Your task to perform on an android device: empty trash in the gmail app Image 0: 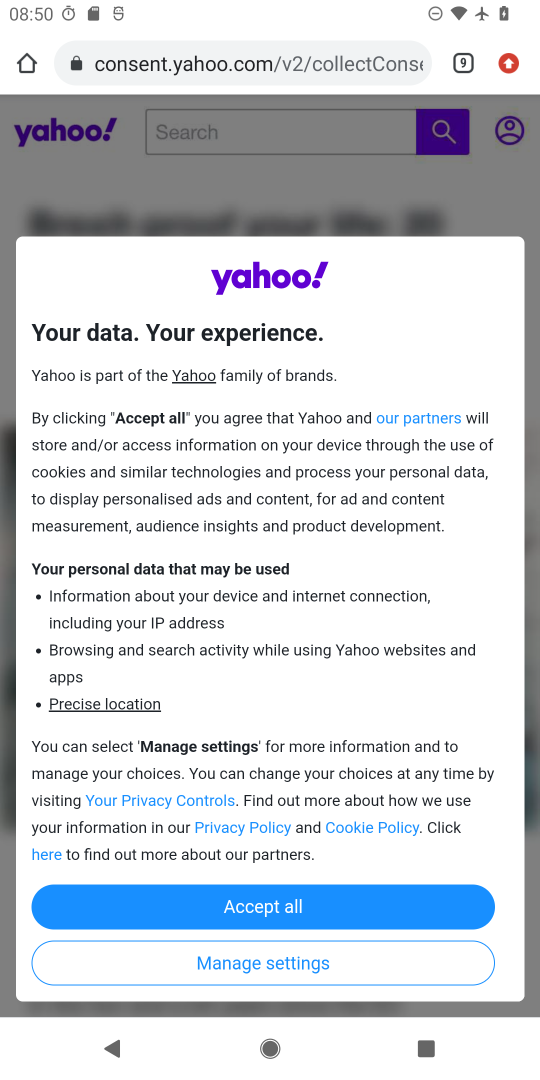
Step 0: press home button
Your task to perform on an android device: empty trash in the gmail app Image 1: 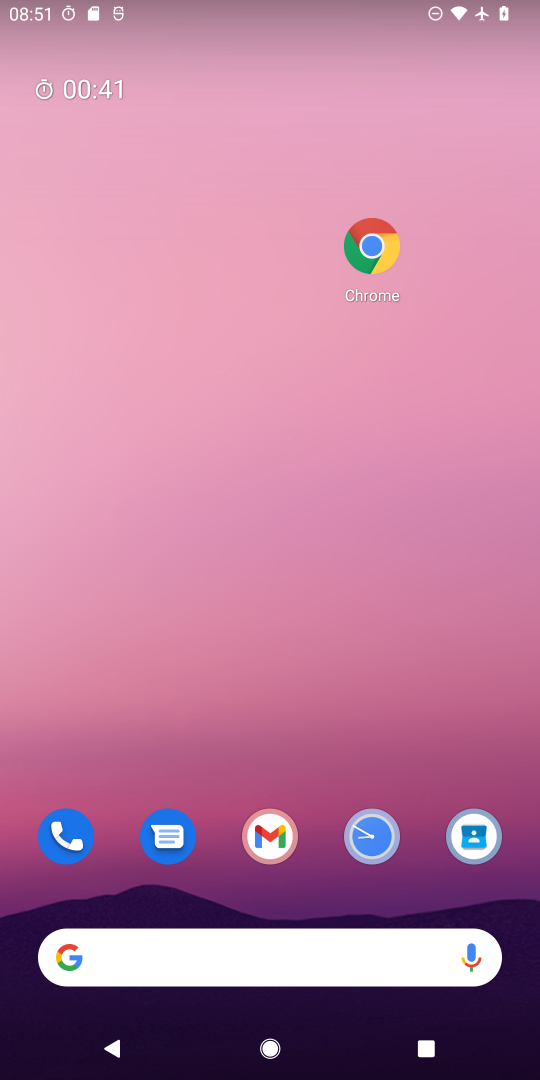
Step 1: click (273, 107)
Your task to perform on an android device: empty trash in the gmail app Image 2: 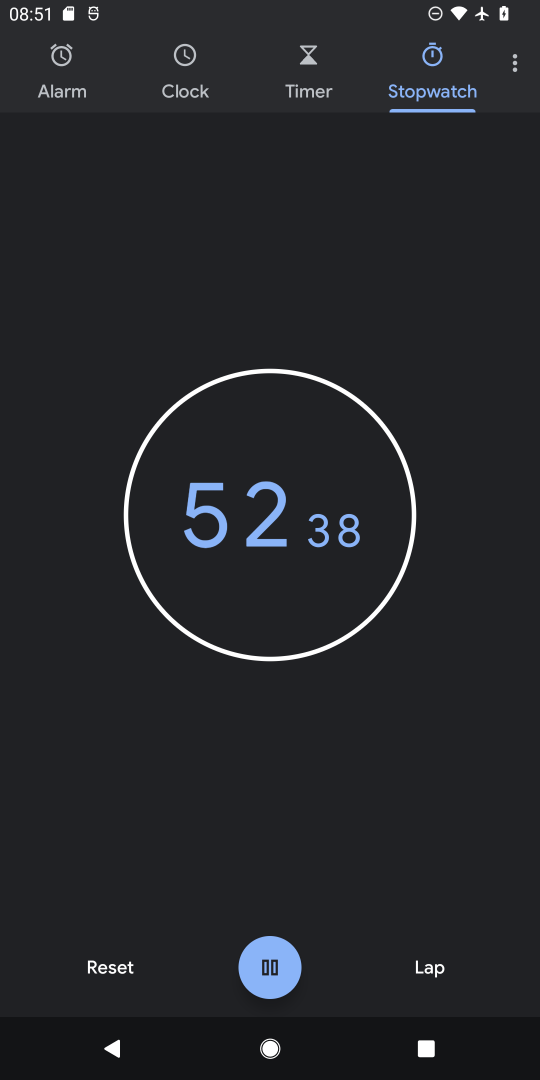
Step 2: press home button
Your task to perform on an android device: empty trash in the gmail app Image 3: 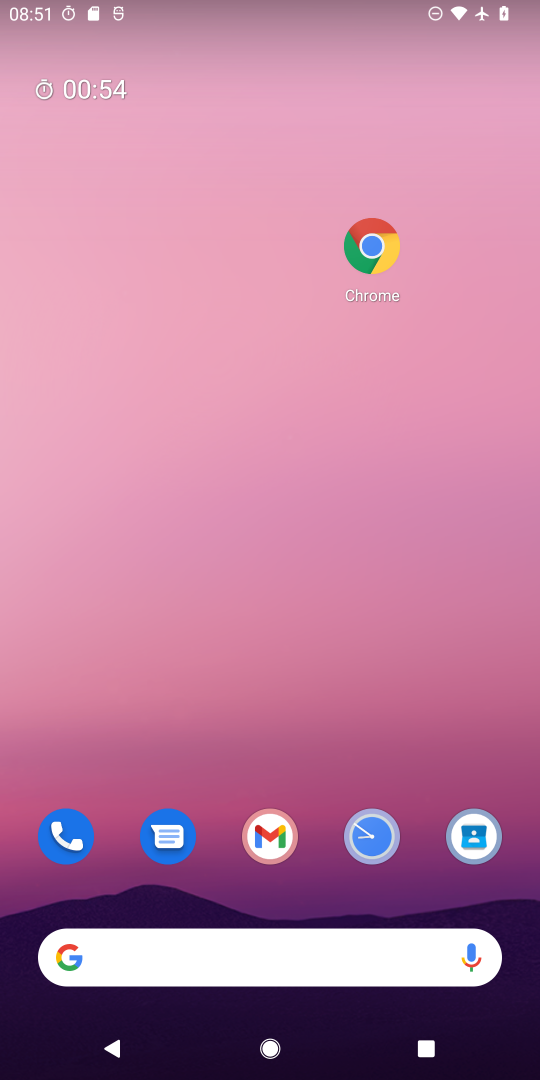
Step 3: drag from (233, 785) to (241, 190)
Your task to perform on an android device: empty trash in the gmail app Image 4: 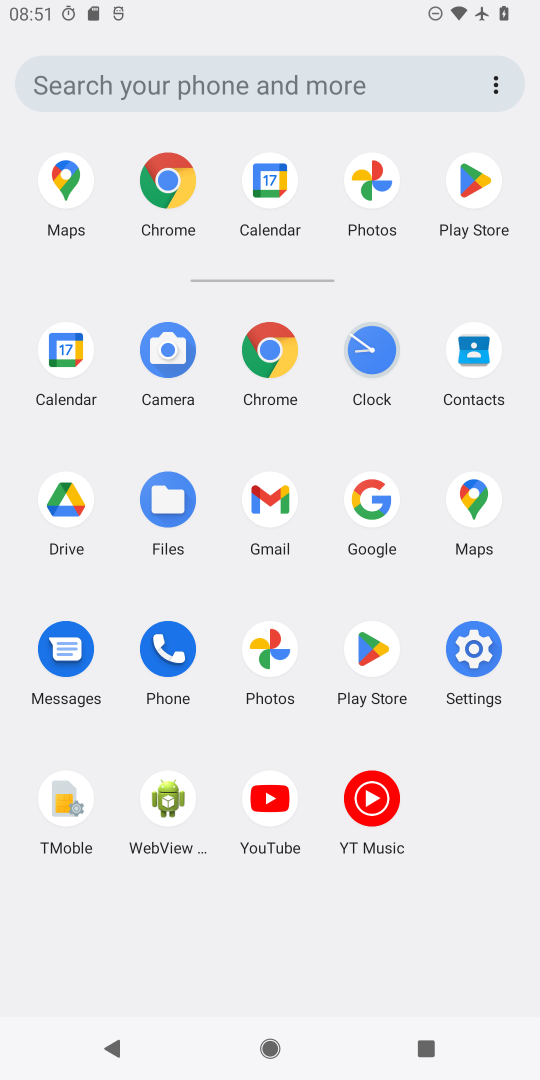
Step 4: click (272, 499)
Your task to perform on an android device: empty trash in the gmail app Image 5: 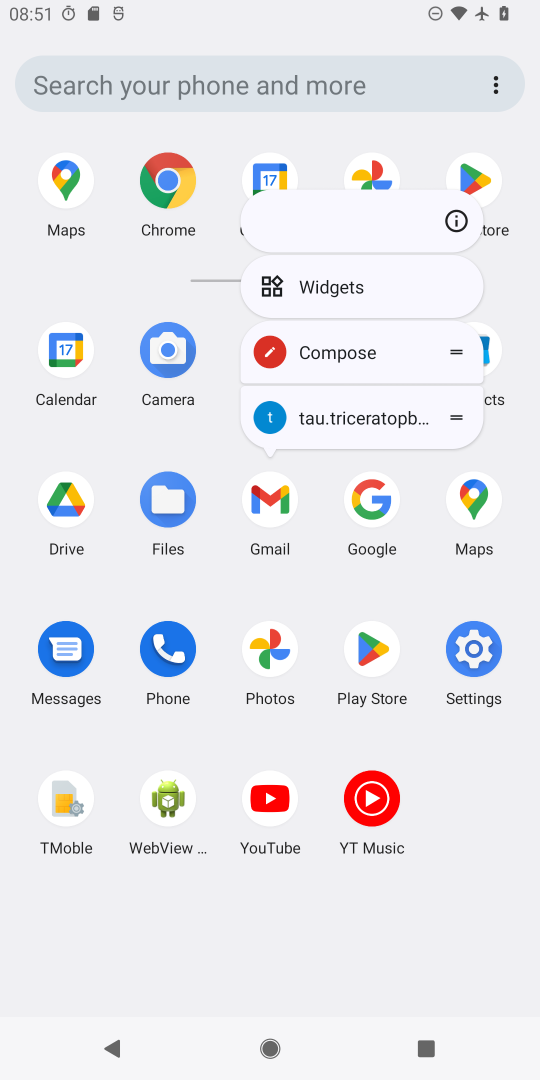
Step 5: click (260, 505)
Your task to perform on an android device: empty trash in the gmail app Image 6: 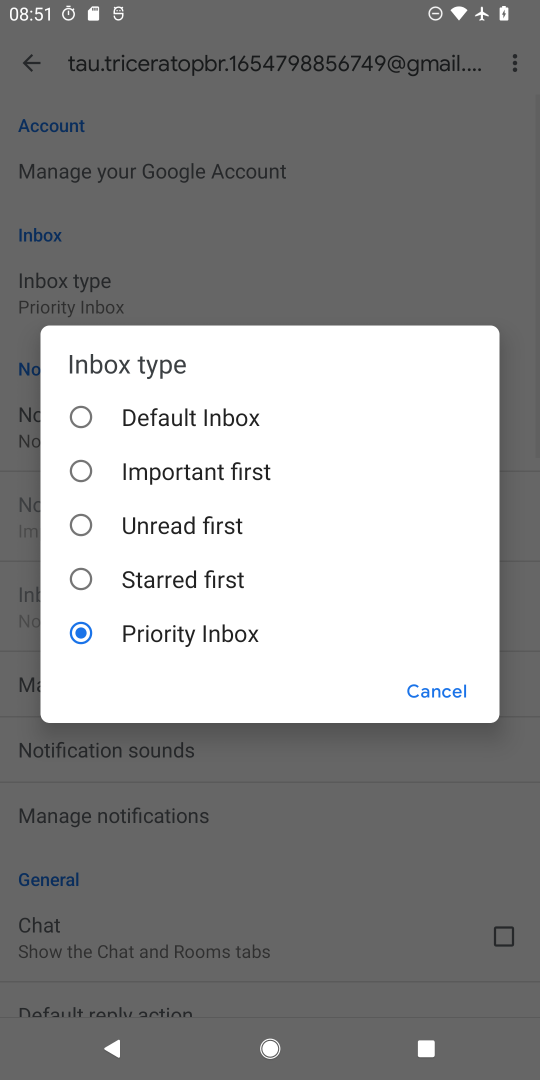
Step 6: click (258, 283)
Your task to perform on an android device: empty trash in the gmail app Image 7: 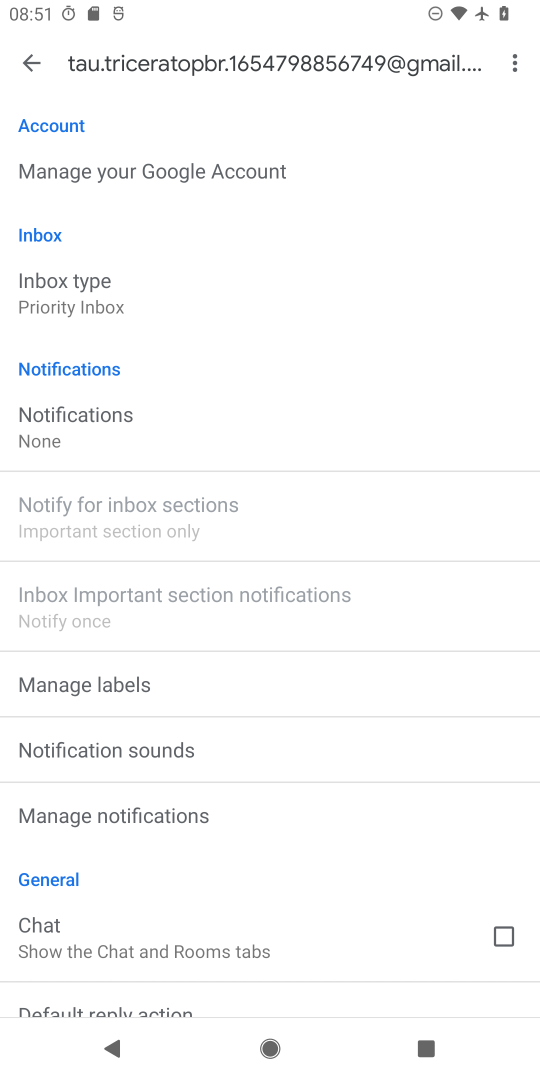
Step 7: click (25, 37)
Your task to perform on an android device: empty trash in the gmail app Image 8: 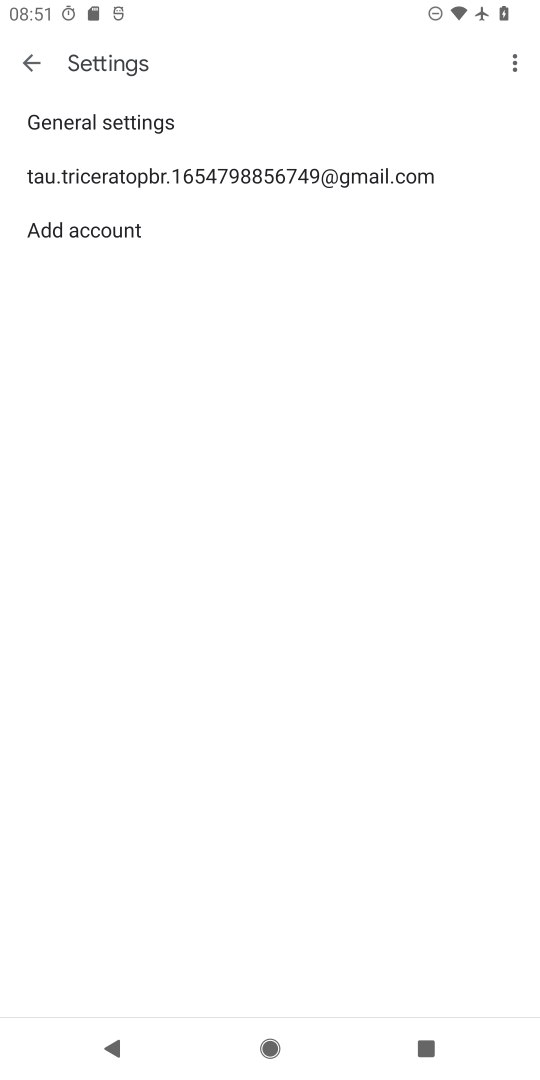
Step 8: click (25, 46)
Your task to perform on an android device: empty trash in the gmail app Image 9: 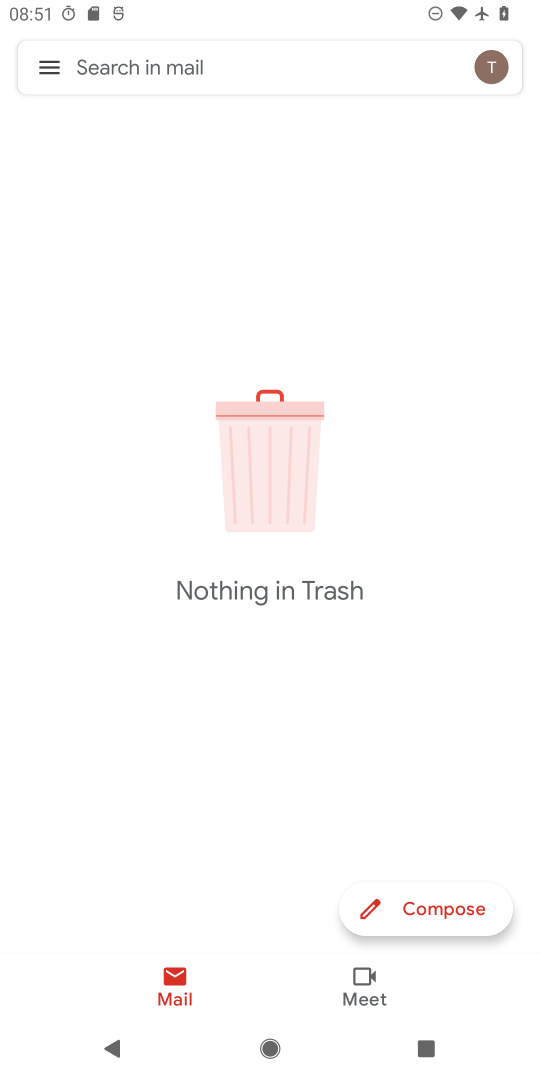
Step 9: click (39, 54)
Your task to perform on an android device: empty trash in the gmail app Image 10: 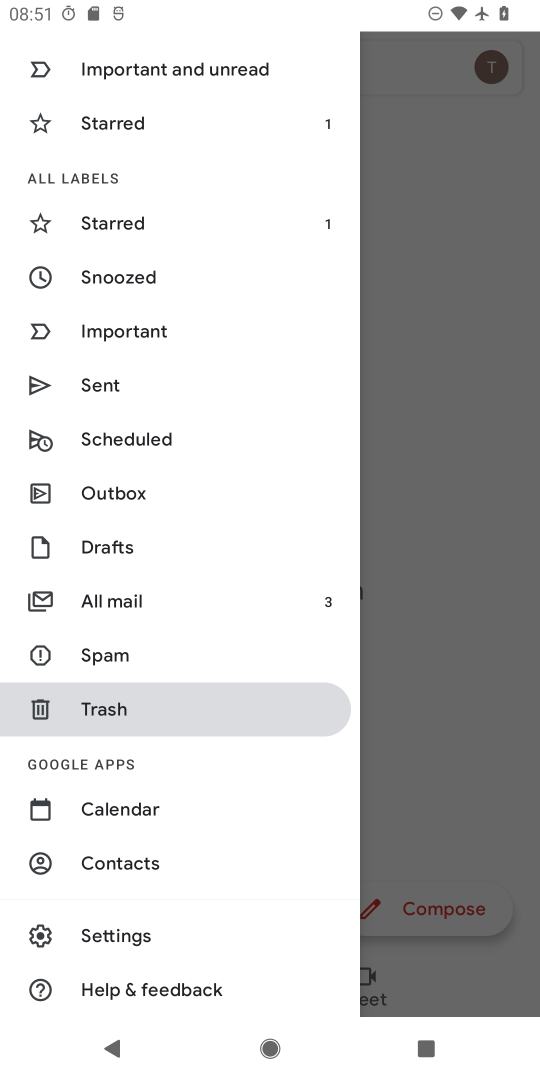
Step 10: click (137, 685)
Your task to perform on an android device: empty trash in the gmail app Image 11: 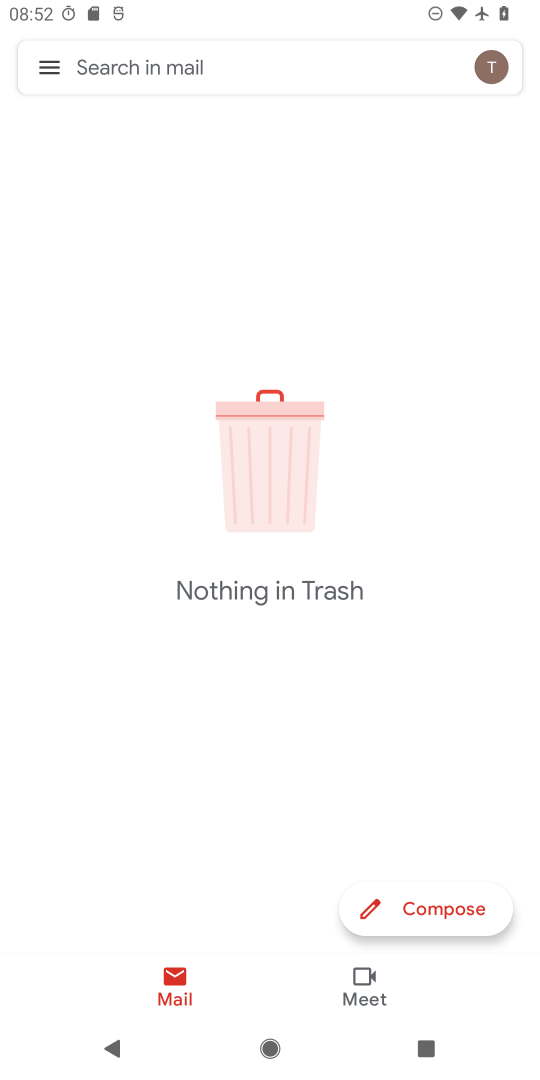
Step 11: task complete